Your task to perform on an android device: open a bookmark in the chrome app Image 0: 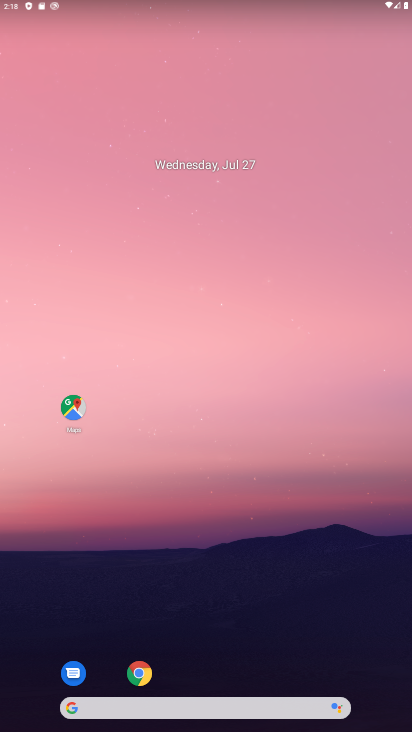
Step 0: press home button
Your task to perform on an android device: open a bookmark in the chrome app Image 1: 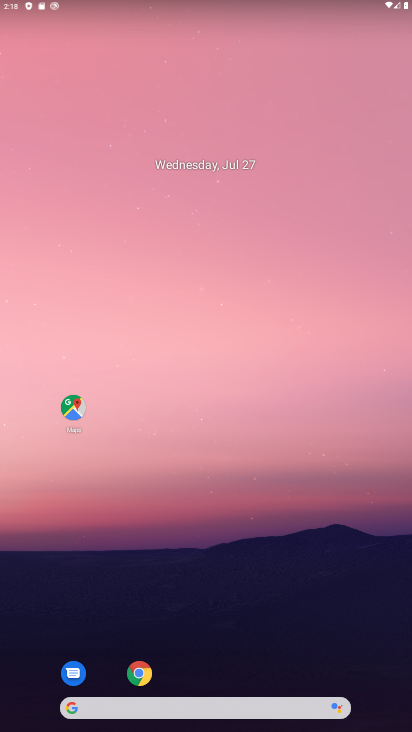
Step 1: drag from (212, 666) to (231, 160)
Your task to perform on an android device: open a bookmark in the chrome app Image 2: 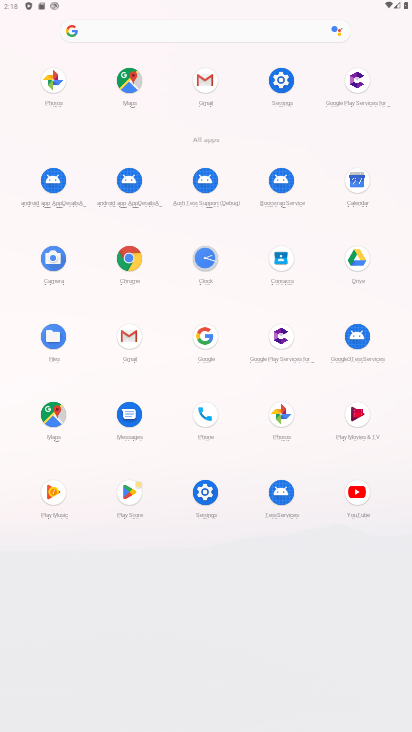
Step 2: click (124, 264)
Your task to perform on an android device: open a bookmark in the chrome app Image 3: 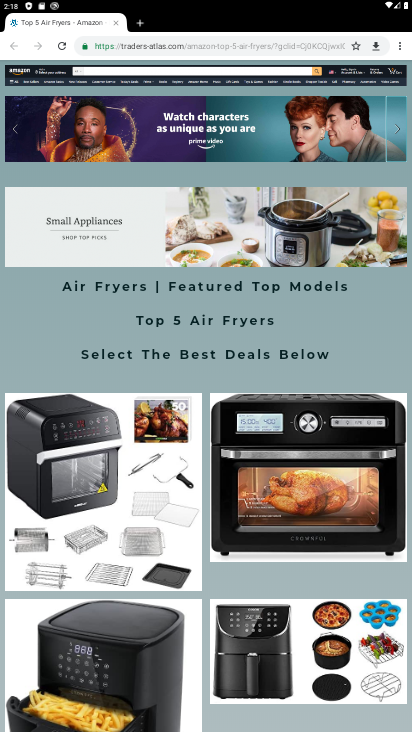
Step 3: drag from (399, 44) to (313, 99)
Your task to perform on an android device: open a bookmark in the chrome app Image 4: 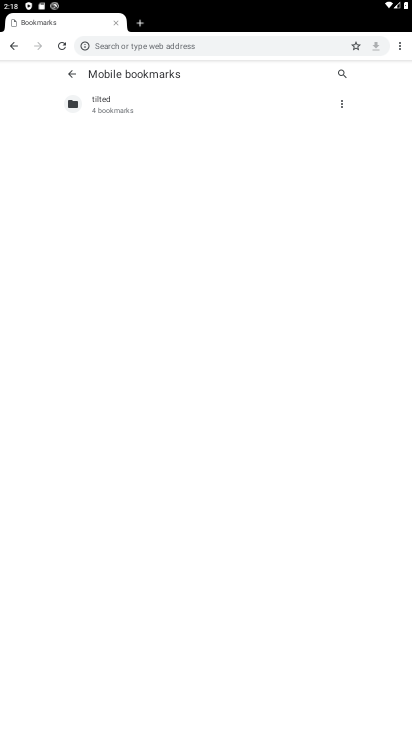
Step 4: click (120, 105)
Your task to perform on an android device: open a bookmark in the chrome app Image 5: 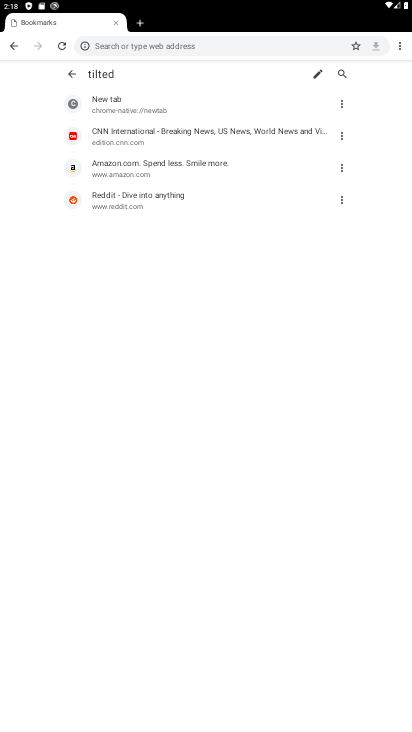
Step 5: click (124, 135)
Your task to perform on an android device: open a bookmark in the chrome app Image 6: 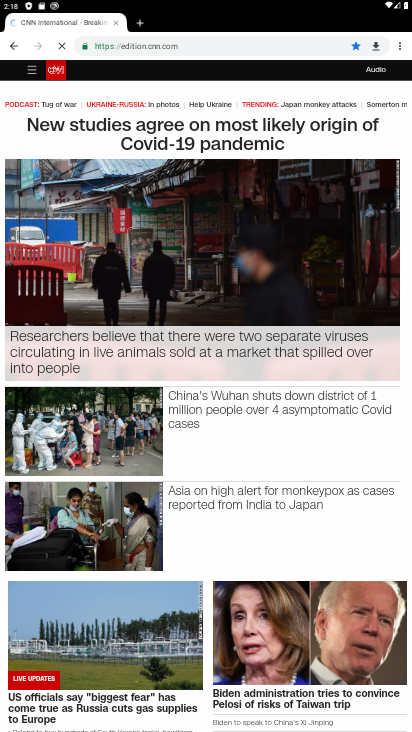
Step 6: task complete